Your task to perform on an android device: change notifications settings Image 0: 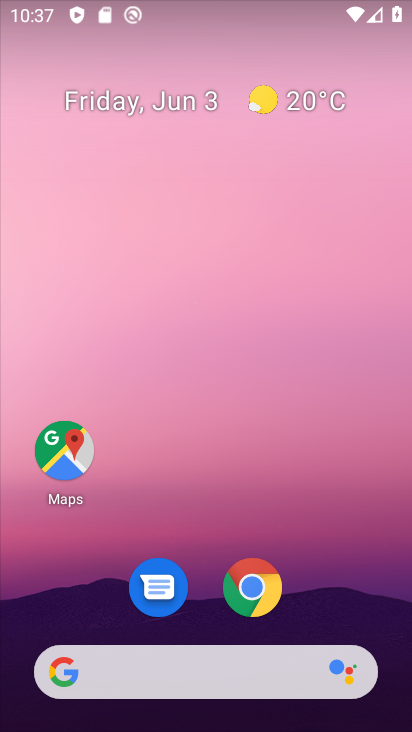
Step 0: drag from (335, 576) to (216, 33)
Your task to perform on an android device: change notifications settings Image 1: 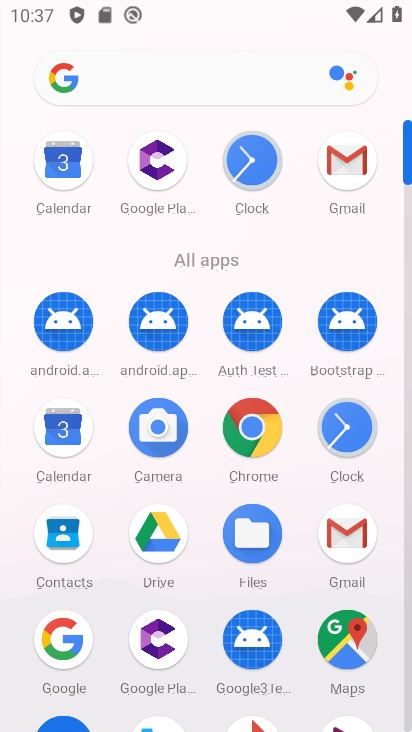
Step 1: drag from (291, 622) to (296, 52)
Your task to perform on an android device: change notifications settings Image 2: 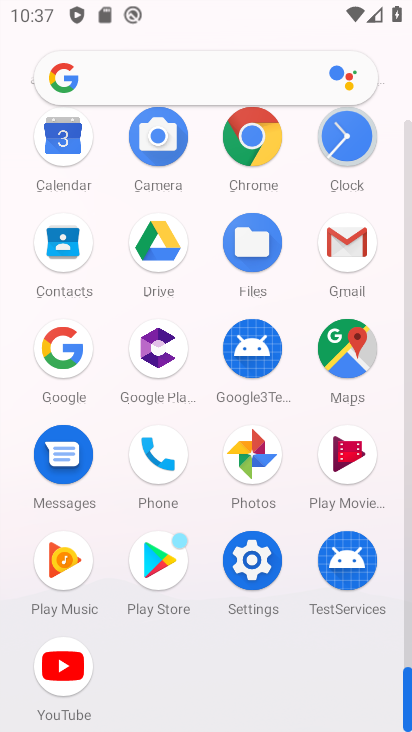
Step 2: click (264, 564)
Your task to perform on an android device: change notifications settings Image 3: 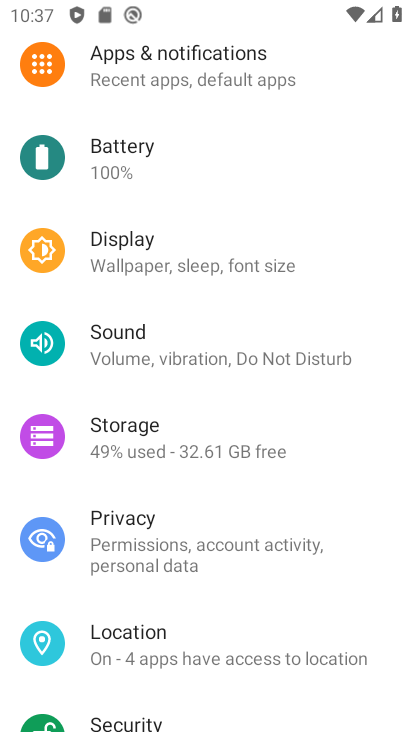
Step 3: click (225, 79)
Your task to perform on an android device: change notifications settings Image 4: 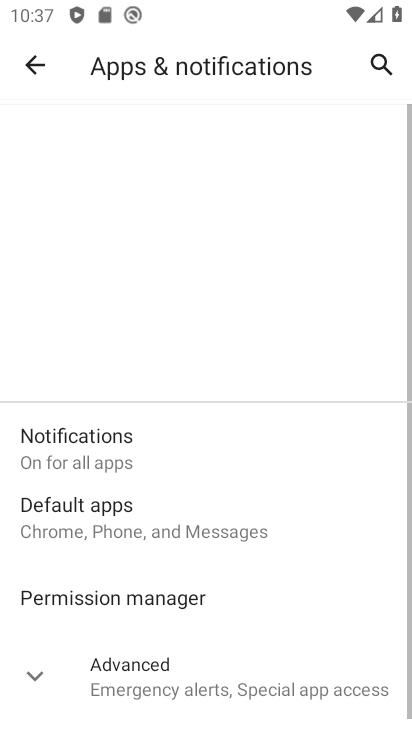
Step 4: click (188, 425)
Your task to perform on an android device: change notifications settings Image 5: 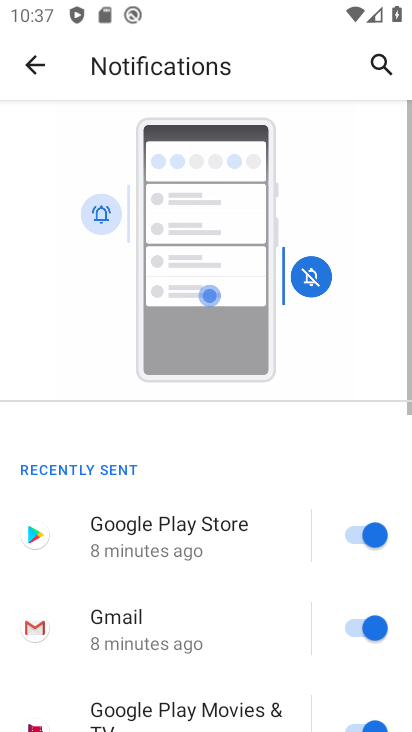
Step 5: drag from (321, 588) to (341, 324)
Your task to perform on an android device: change notifications settings Image 6: 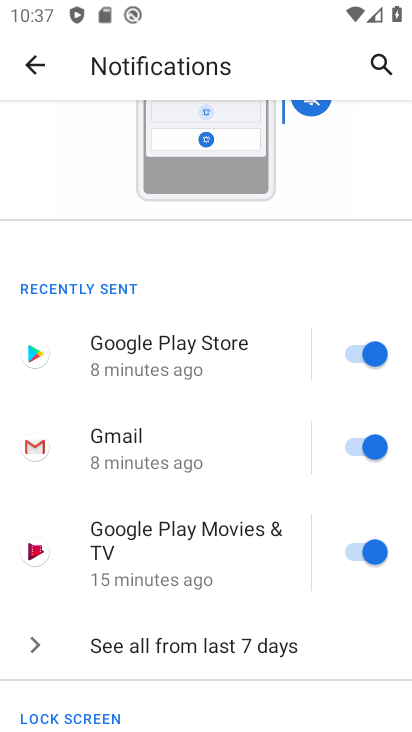
Step 6: click (371, 354)
Your task to perform on an android device: change notifications settings Image 7: 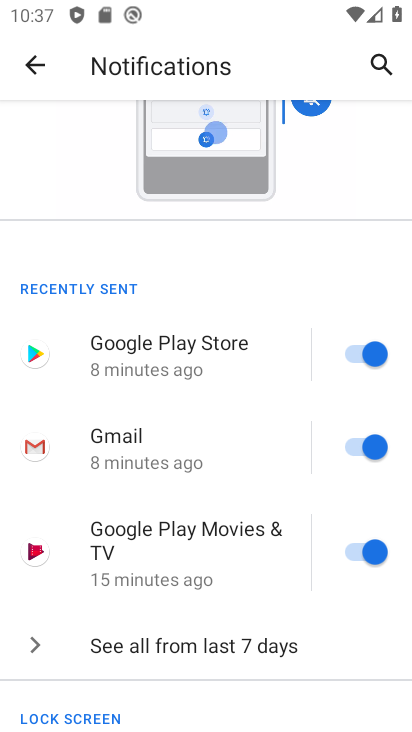
Step 7: click (371, 455)
Your task to perform on an android device: change notifications settings Image 8: 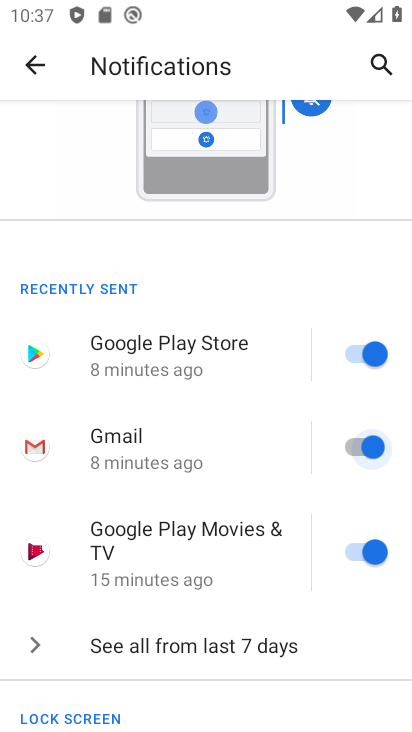
Step 8: click (374, 546)
Your task to perform on an android device: change notifications settings Image 9: 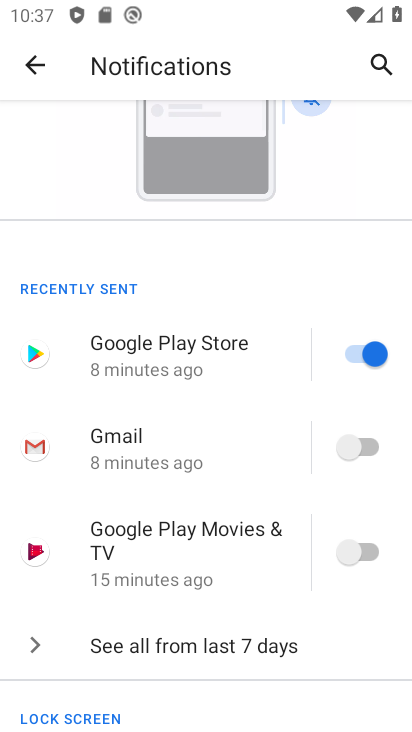
Step 9: task complete